Your task to perform on an android device: Open internet settings Image 0: 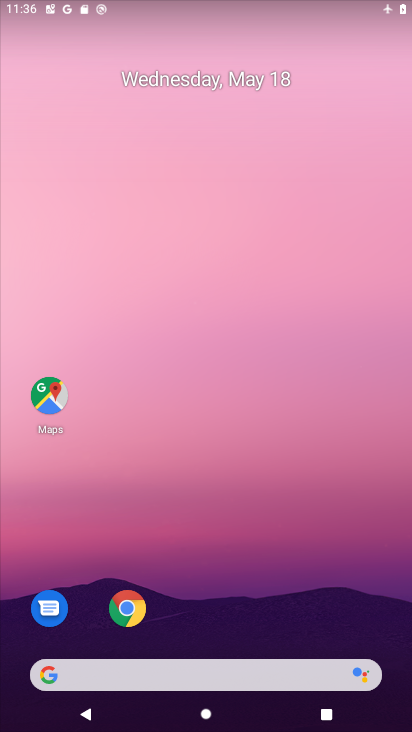
Step 0: drag from (216, 636) to (139, 99)
Your task to perform on an android device: Open internet settings Image 1: 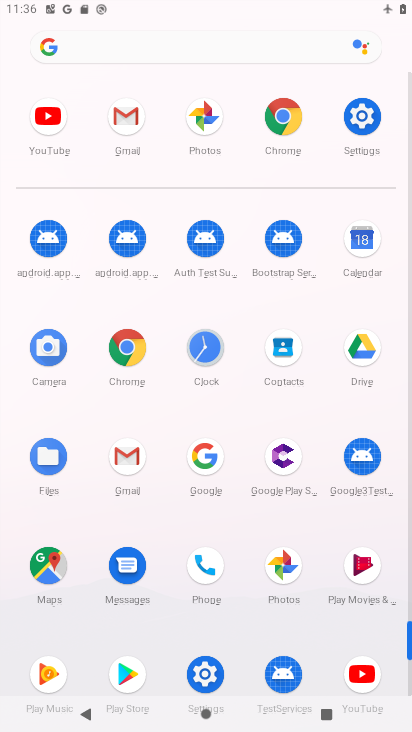
Step 1: click (363, 116)
Your task to perform on an android device: Open internet settings Image 2: 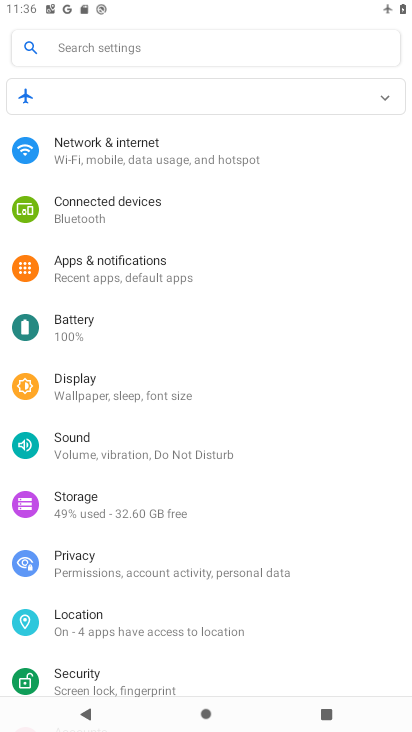
Step 2: click (80, 162)
Your task to perform on an android device: Open internet settings Image 3: 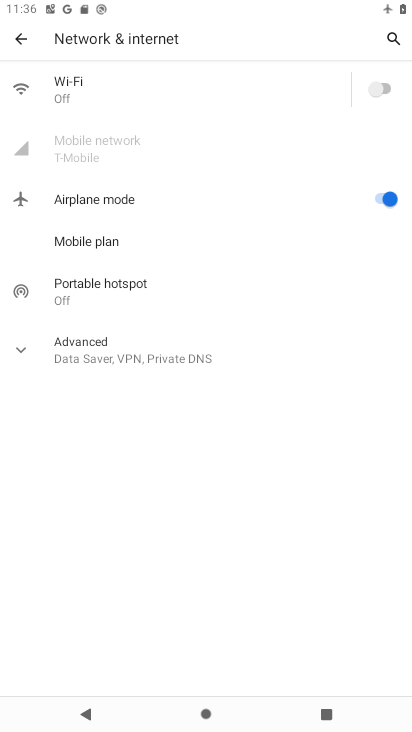
Step 3: task complete